Your task to perform on an android device: turn off airplane mode Image 0: 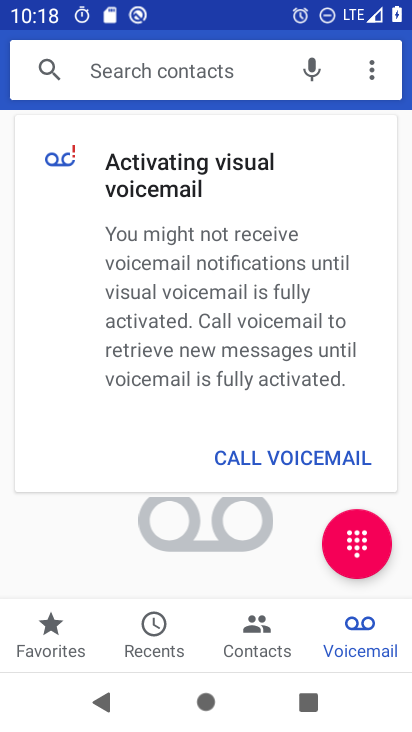
Step 0: press home button
Your task to perform on an android device: turn off airplane mode Image 1: 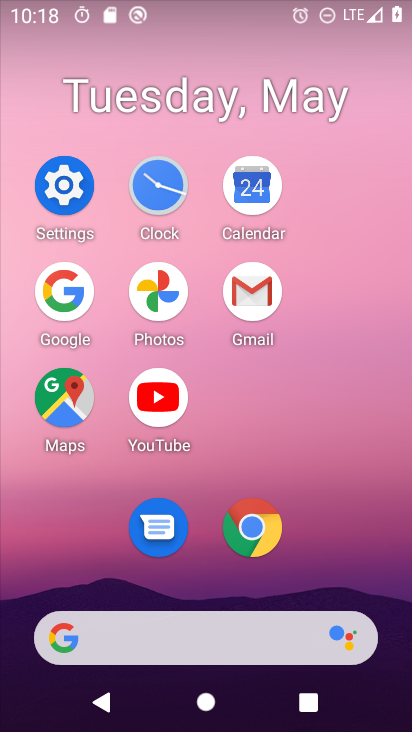
Step 1: click (81, 185)
Your task to perform on an android device: turn off airplane mode Image 2: 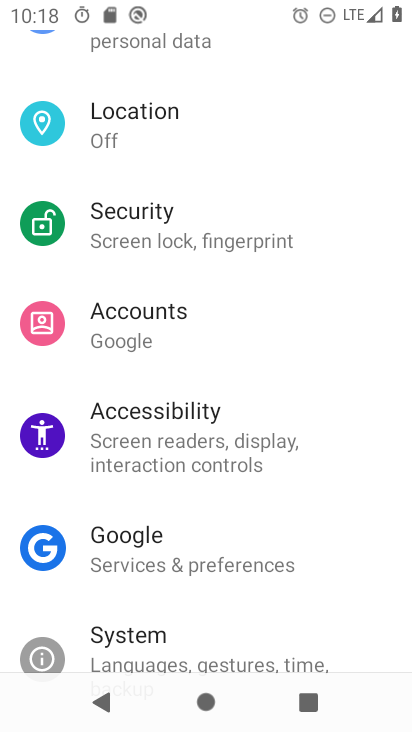
Step 2: drag from (335, 173) to (324, 608)
Your task to perform on an android device: turn off airplane mode Image 3: 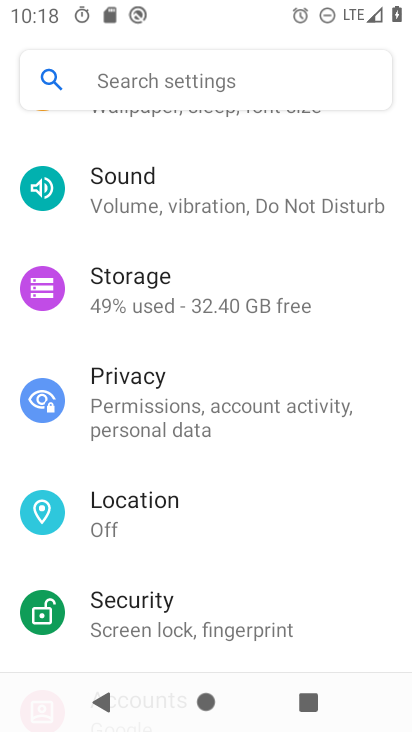
Step 3: drag from (292, 246) to (288, 665)
Your task to perform on an android device: turn off airplane mode Image 4: 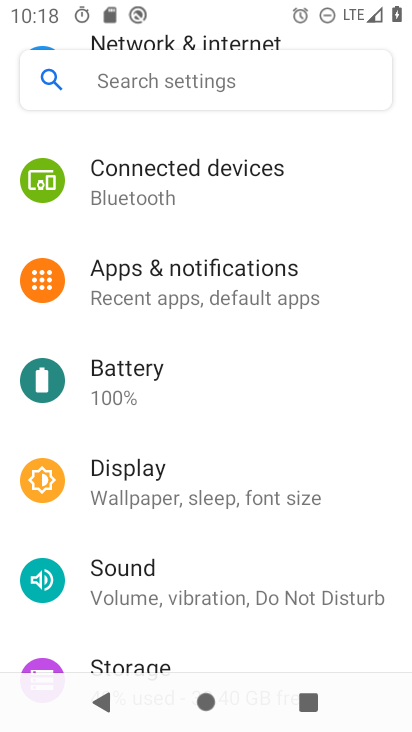
Step 4: drag from (356, 241) to (330, 588)
Your task to perform on an android device: turn off airplane mode Image 5: 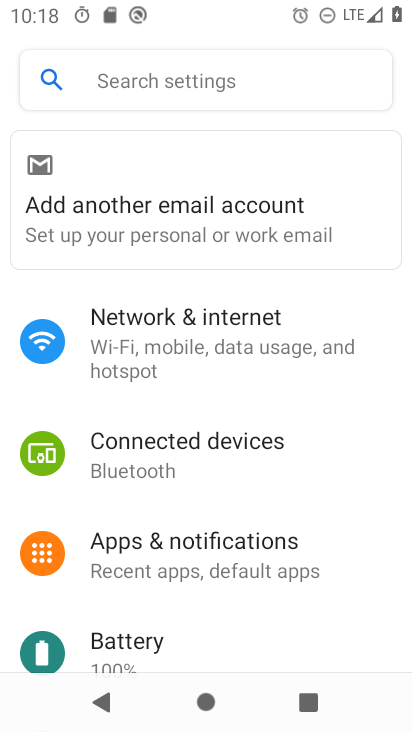
Step 5: click (280, 356)
Your task to perform on an android device: turn off airplane mode Image 6: 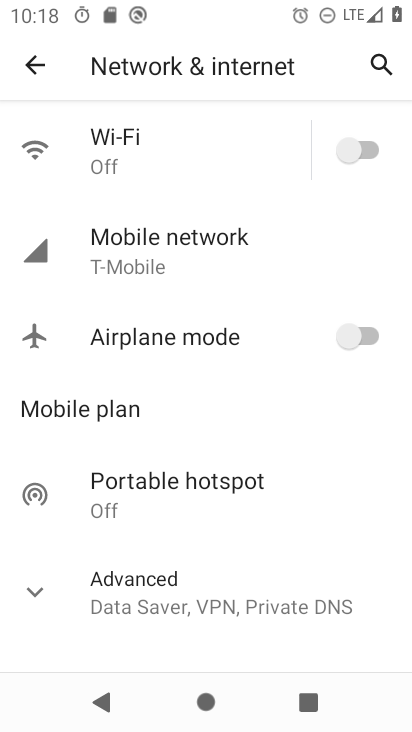
Step 6: task complete